Your task to perform on an android device: Go to ESPN.com Image 0: 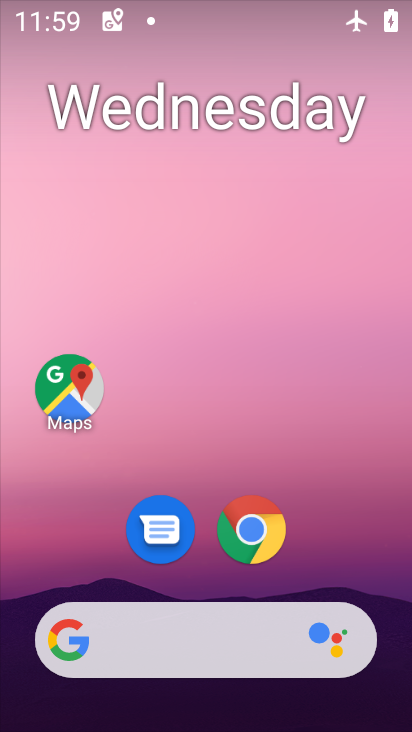
Step 0: click (254, 530)
Your task to perform on an android device: Go to ESPN.com Image 1: 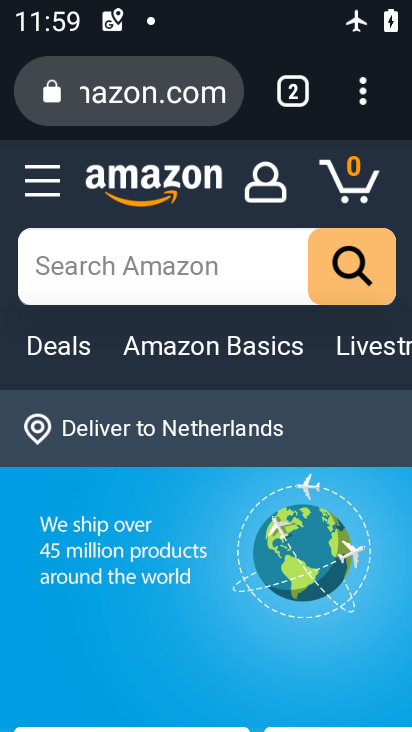
Step 1: click (131, 83)
Your task to perform on an android device: Go to ESPN.com Image 2: 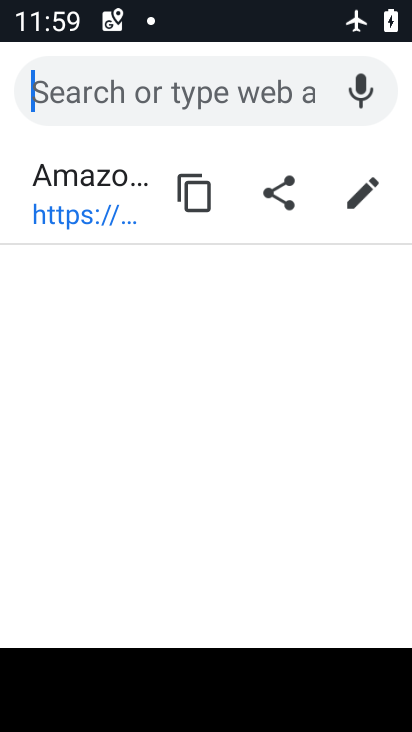
Step 2: type "espn.com"
Your task to perform on an android device: Go to ESPN.com Image 3: 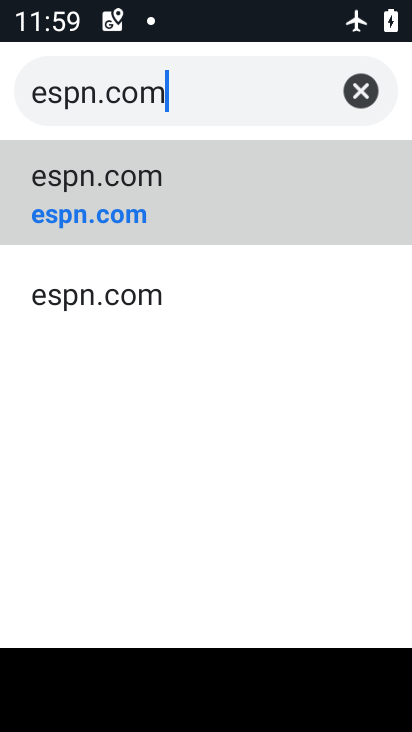
Step 3: click (91, 204)
Your task to perform on an android device: Go to ESPN.com Image 4: 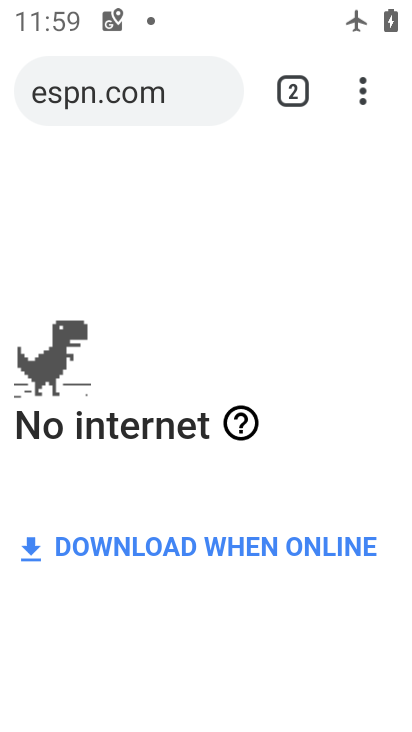
Step 4: task complete